Your task to perform on an android device: set an alarm Image 0: 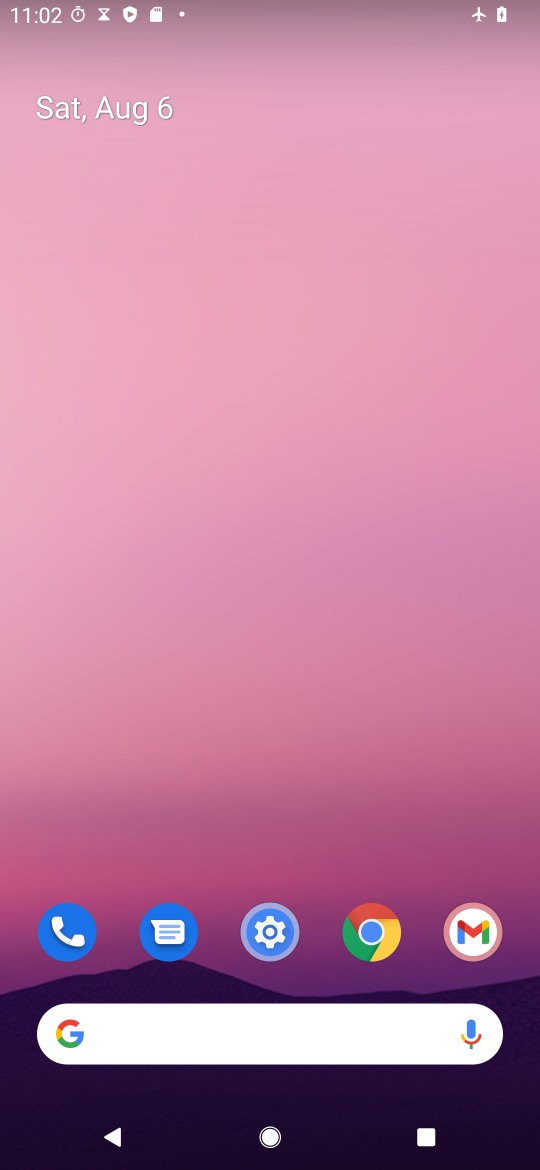
Step 0: drag from (219, 1036) to (244, 384)
Your task to perform on an android device: set an alarm Image 1: 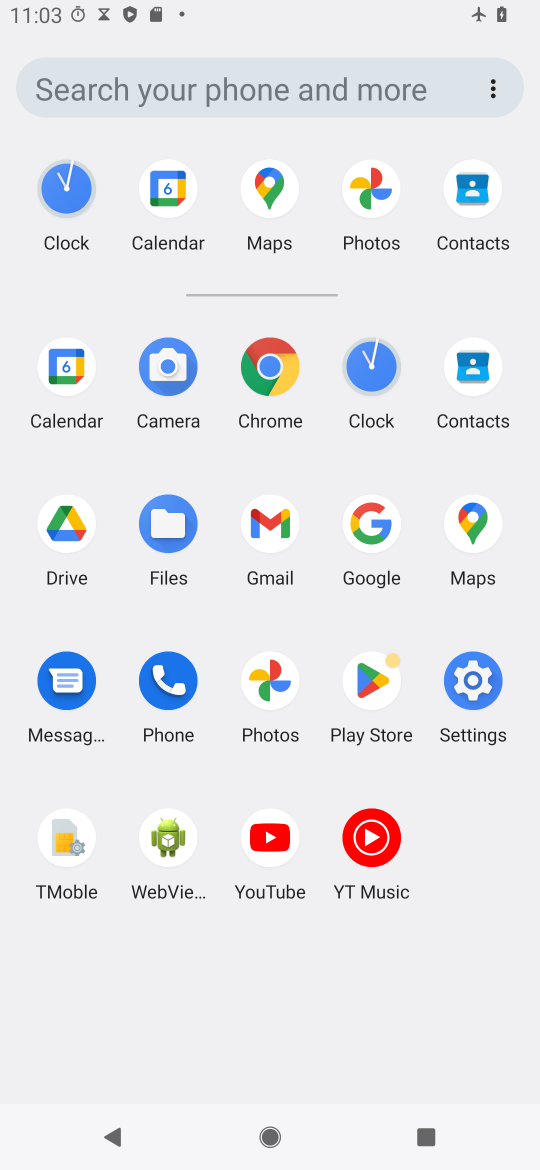
Step 1: click (373, 366)
Your task to perform on an android device: set an alarm Image 2: 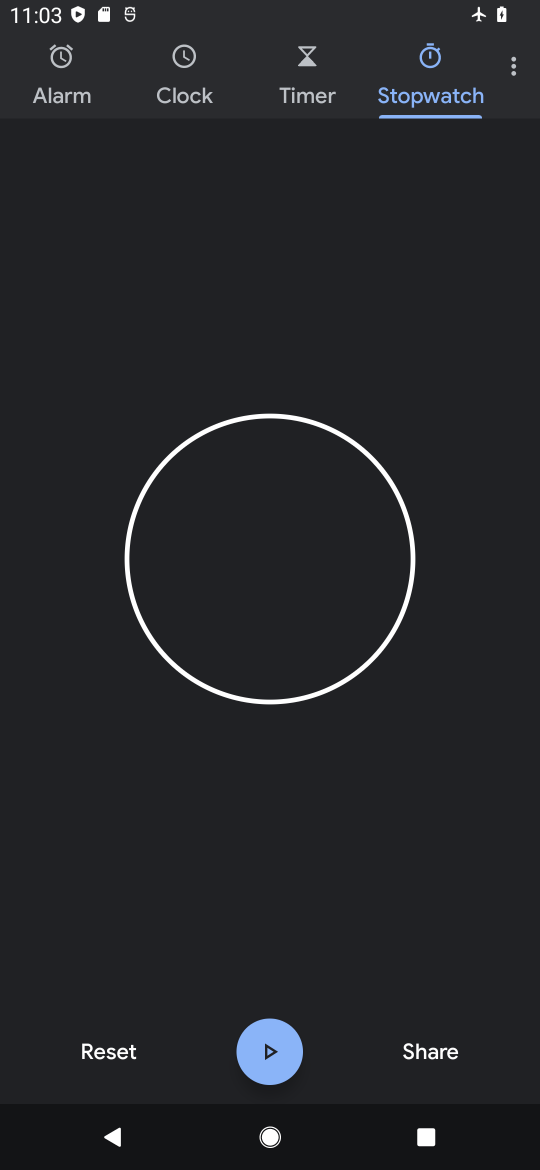
Step 2: click (63, 59)
Your task to perform on an android device: set an alarm Image 3: 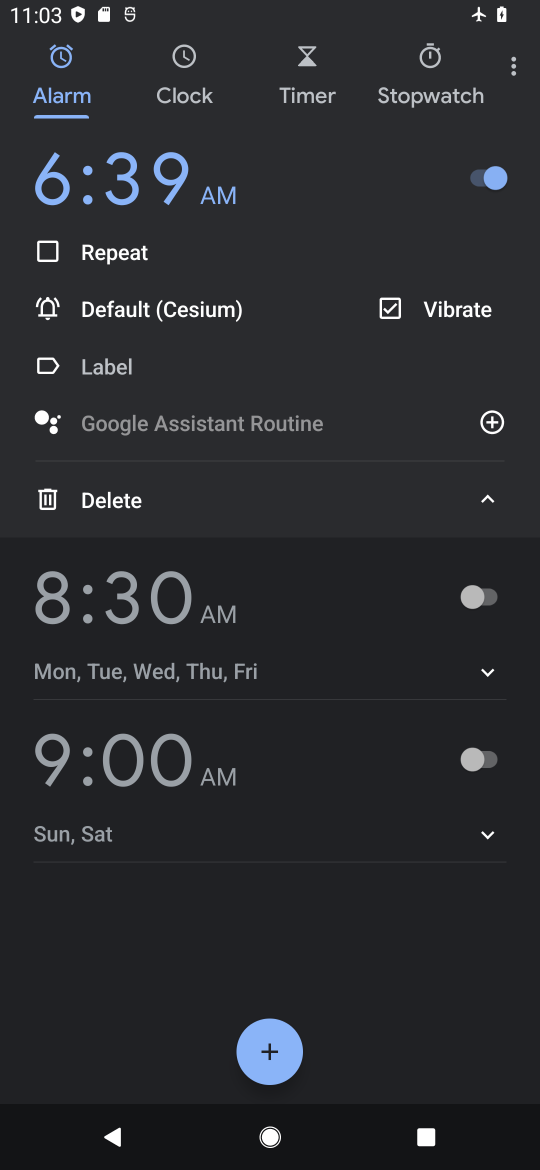
Step 3: click (121, 628)
Your task to perform on an android device: set an alarm Image 4: 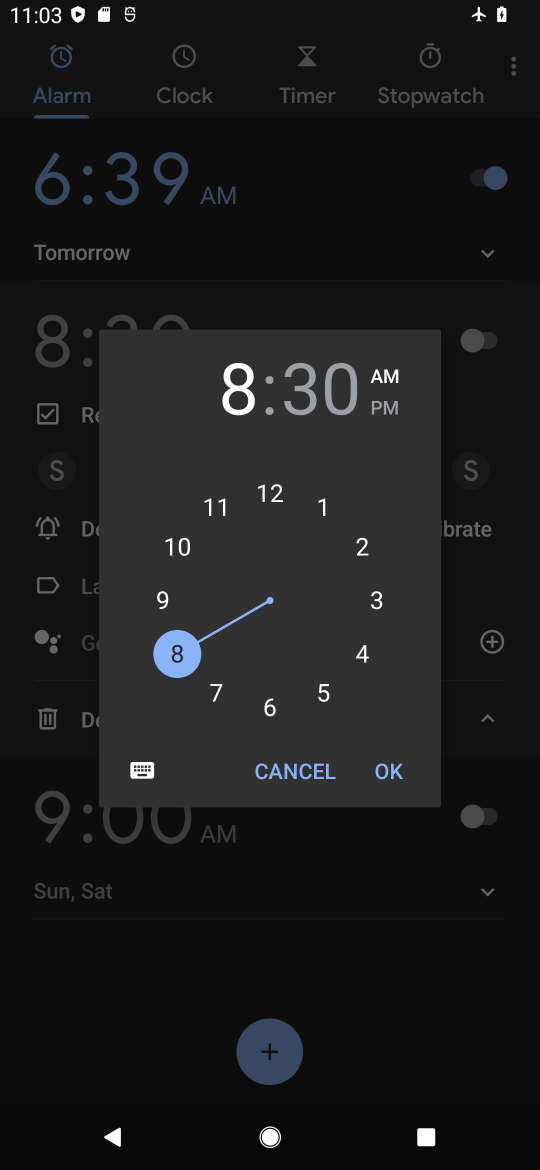
Step 4: click (297, 702)
Your task to perform on an android device: set an alarm Image 5: 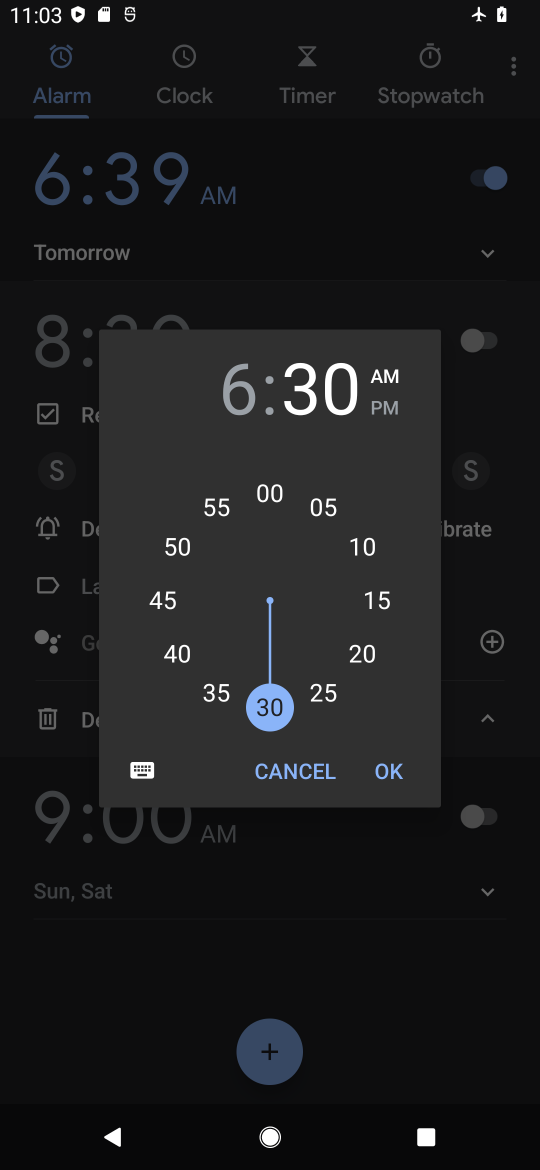
Step 5: click (240, 493)
Your task to perform on an android device: set an alarm Image 6: 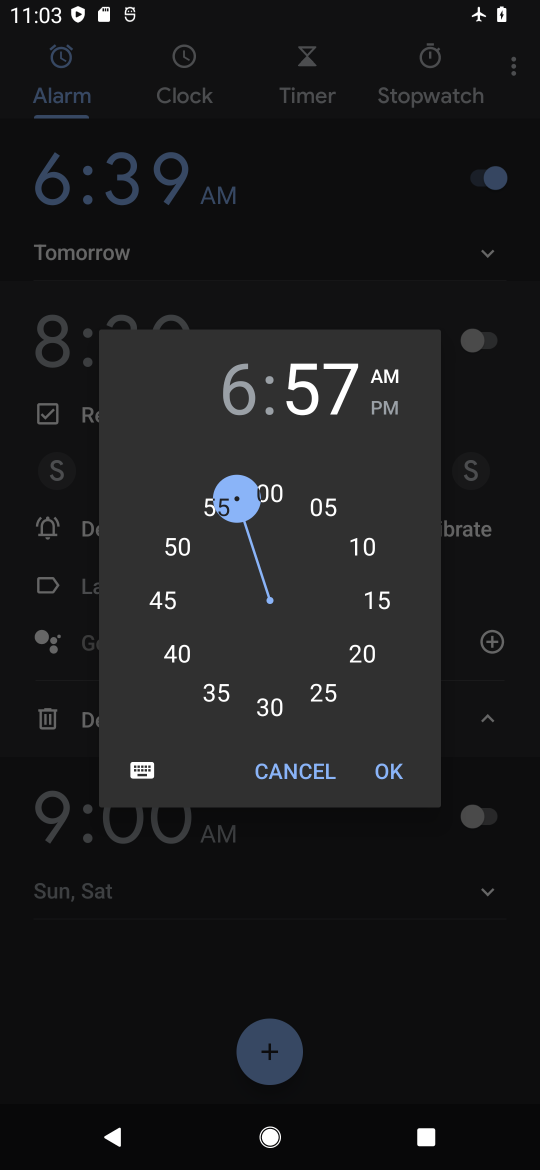
Step 6: click (383, 417)
Your task to perform on an android device: set an alarm Image 7: 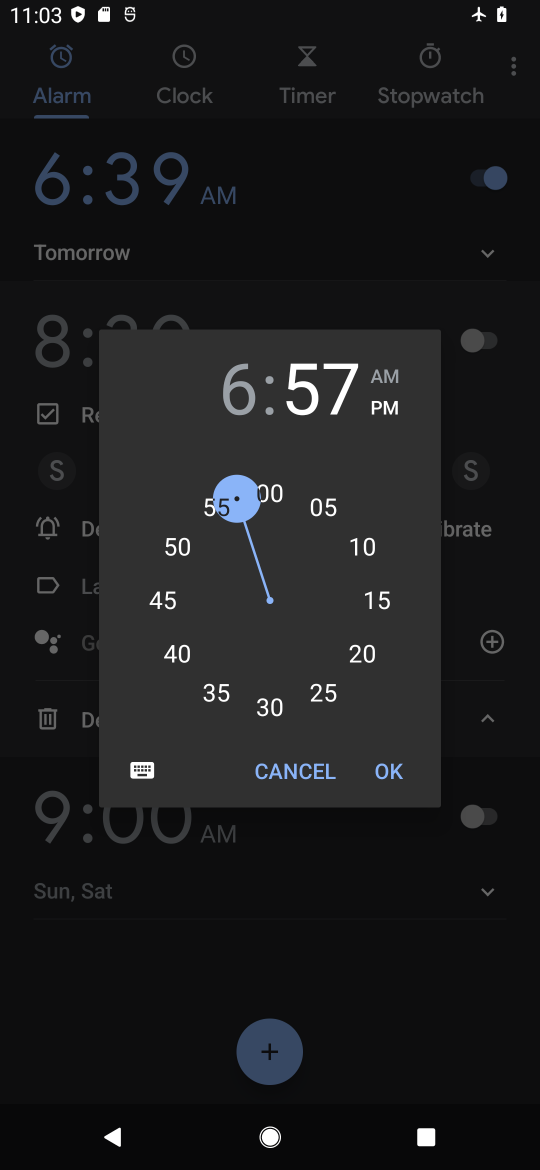
Step 7: click (395, 762)
Your task to perform on an android device: set an alarm Image 8: 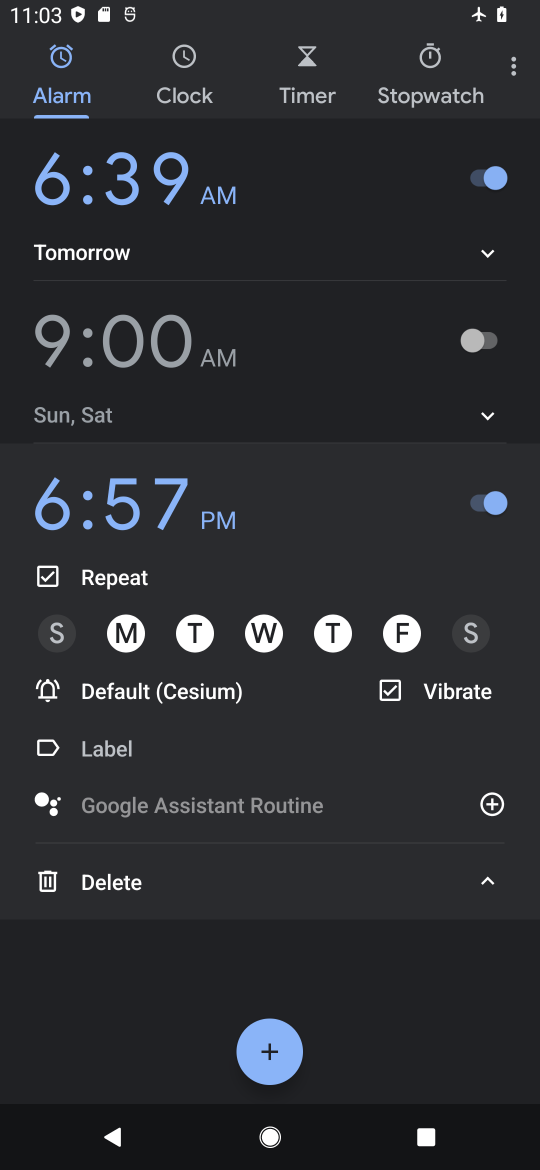
Step 8: task complete